Your task to perform on an android device: delete the emails in spam in the gmail app Image 0: 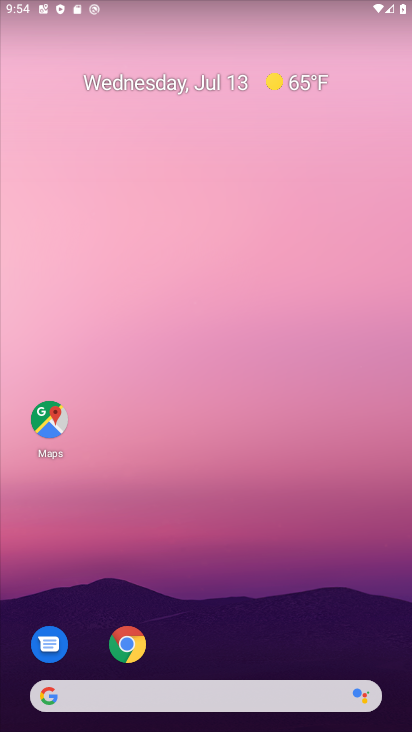
Step 0: drag from (271, 604) to (321, 45)
Your task to perform on an android device: delete the emails in spam in the gmail app Image 1: 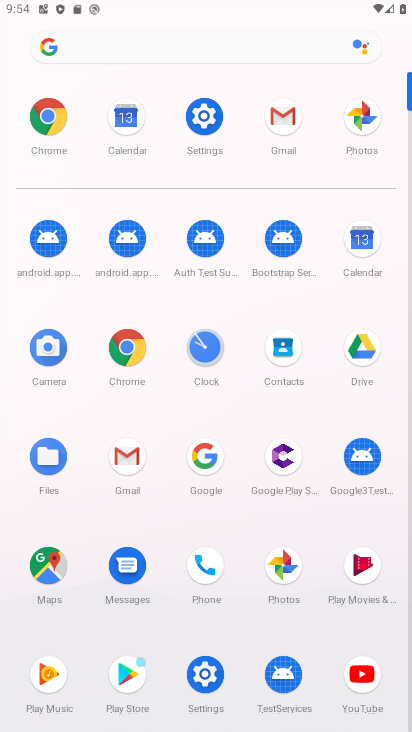
Step 1: click (286, 123)
Your task to perform on an android device: delete the emails in spam in the gmail app Image 2: 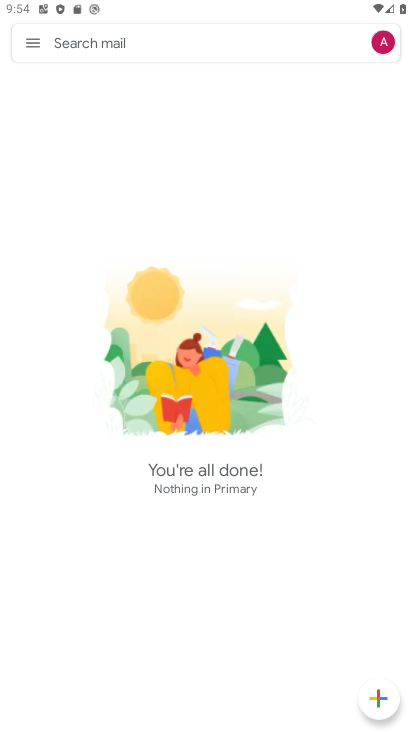
Step 2: click (34, 52)
Your task to perform on an android device: delete the emails in spam in the gmail app Image 3: 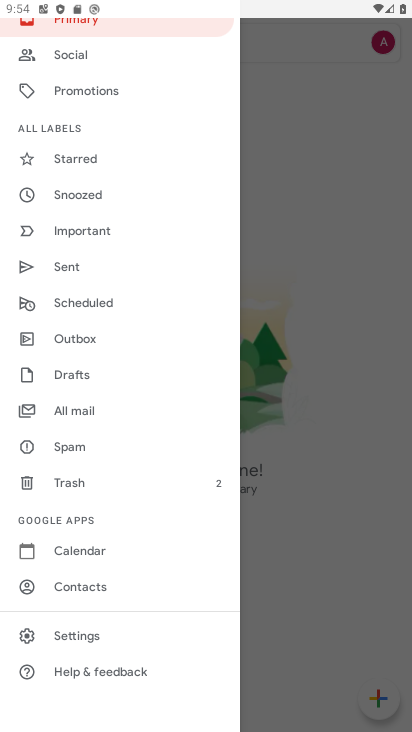
Step 3: click (59, 449)
Your task to perform on an android device: delete the emails in spam in the gmail app Image 4: 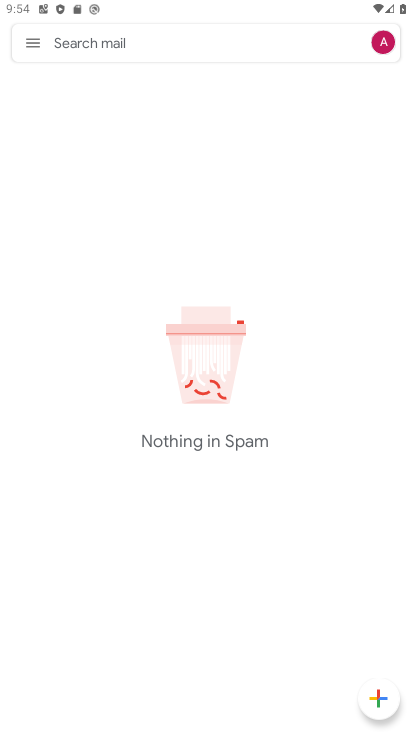
Step 4: task complete